Your task to perform on an android device: Clear all items from cart on ebay. Add "razer blackwidow" to the cart on ebay Image 0: 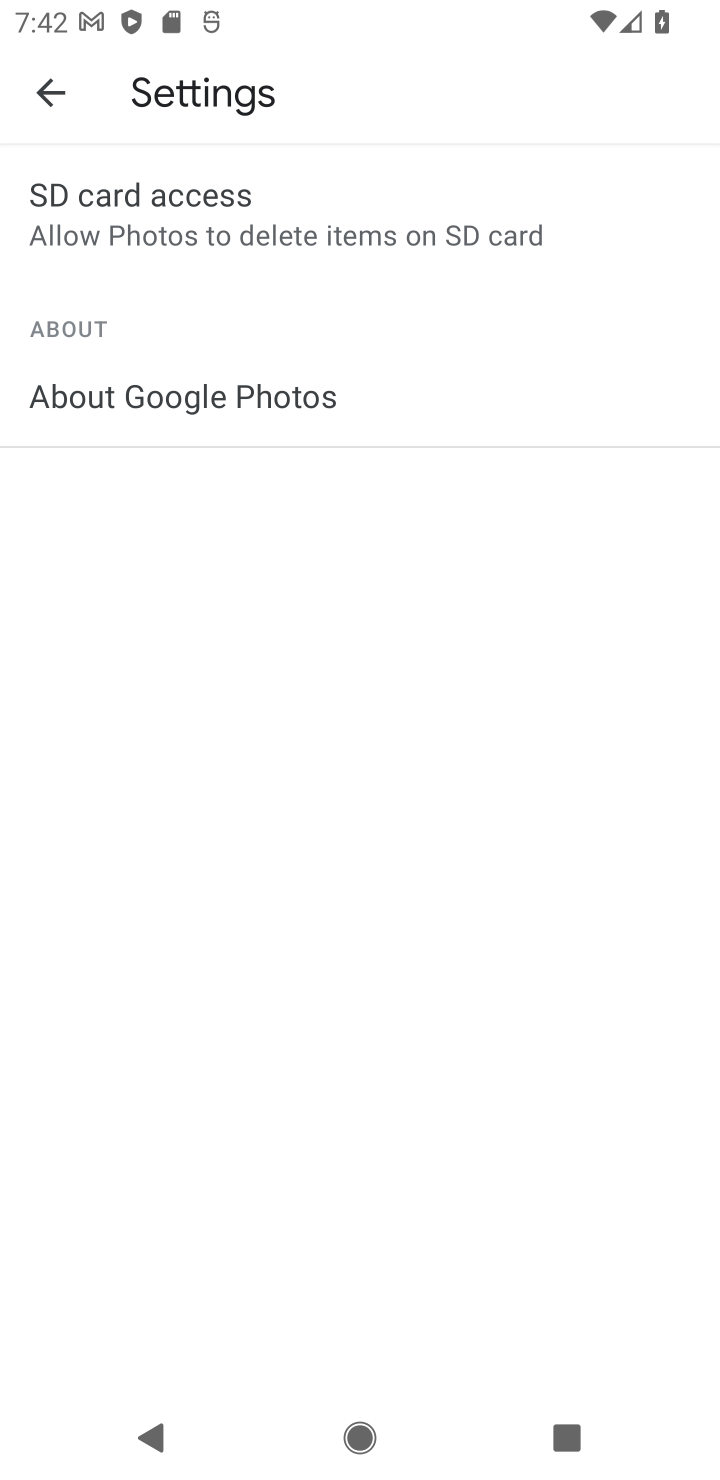
Step 0: task complete